Your task to perform on an android device: change notification settings in the gmail app Image 0: 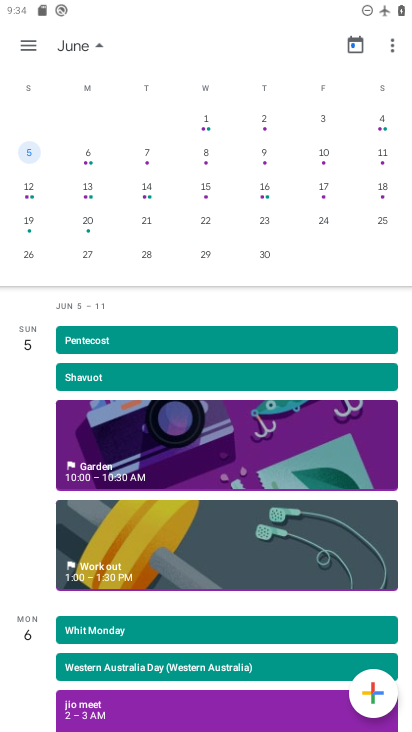
Step 0: press home button
Your task to perform on an android device: change notification settings in the gmail app Image 1: 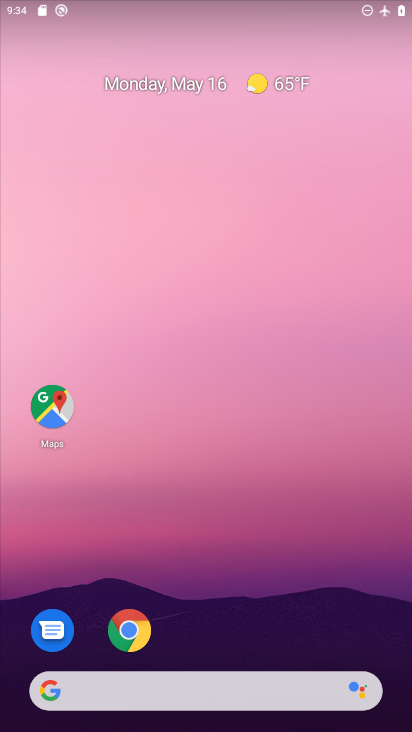
Step 1: drag from (238, 592) to (233, 155)
Your task to perform on an android device: change notification settings in the gmail app Image 2: 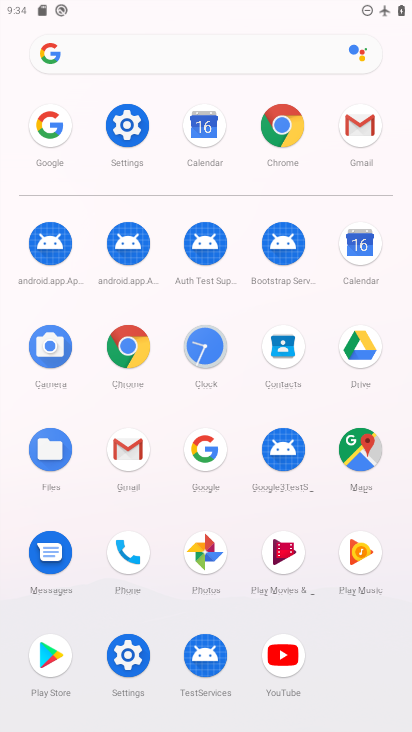
Step 2: click (350, 142)
Your task to perform on an android device: change notification settings in the gmail app Image 3: 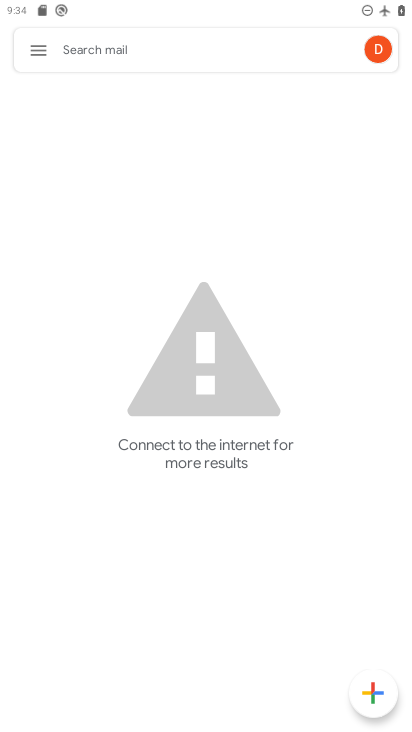
Step 3: click (37, 51)
Your task to perform on an android device: change notification settings in the gmail app Image 4: 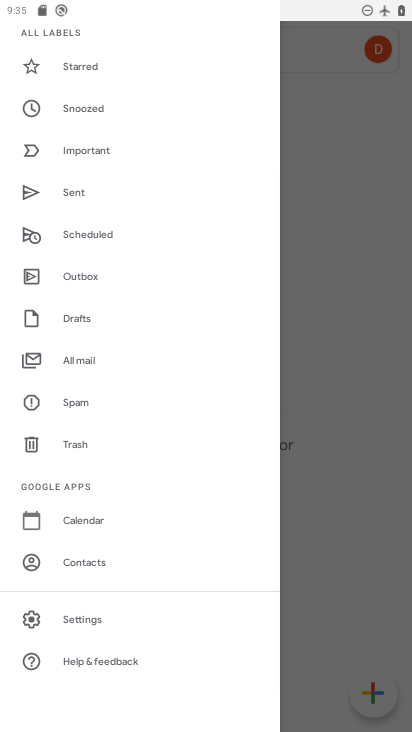
Step 4: click (106, 616)
Your task to perform on an android device: change notification settings in the gmail app Image 5: 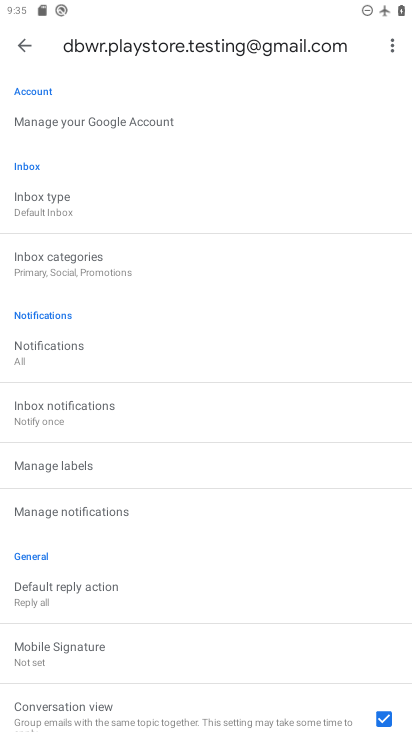
Step 5: click (130, 511)
Your task to perform on an android device: change notification settings in the gmail app Image 6: 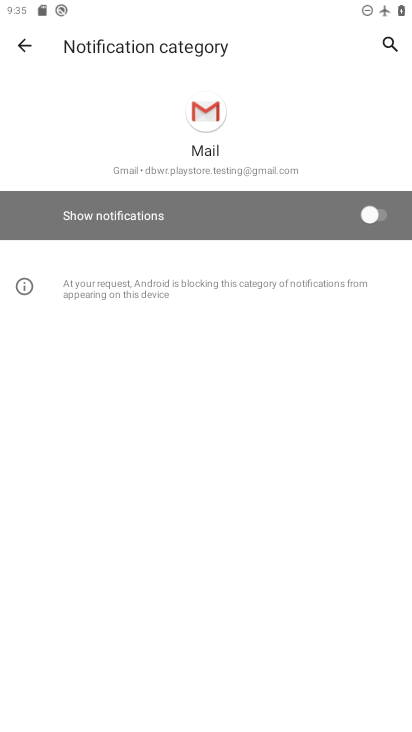
Step 6: click (380, 210)
Your task to perform on an android device: change notification settings in the gmail app Image 7: 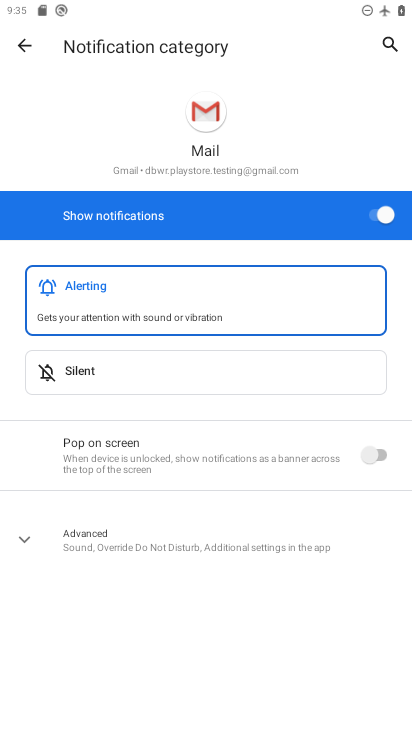
Step 7: task complete